Your task to perform on an android device: Search for vegetarian restaurants on Maps Image 0: 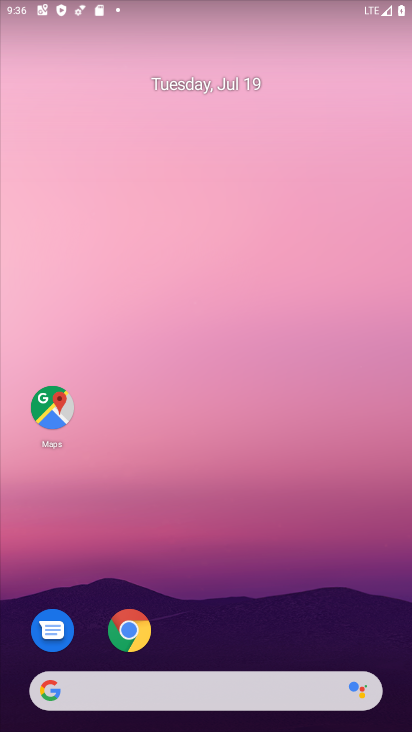
Step 0: drag from (226, 641) to (263, 180)
Your task to perform on an android device: Search for vegetarian restaurants on Maps Image 1: 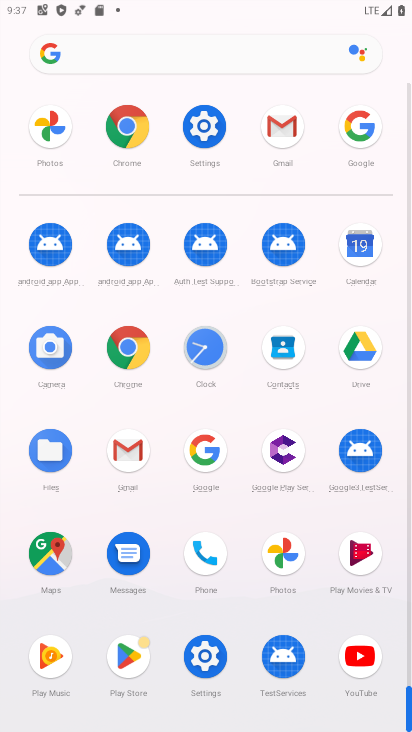
Step 1: click (47, 570)
Your task to perform on an android device: Search for vegetarian restaurants on Maps Image 2: 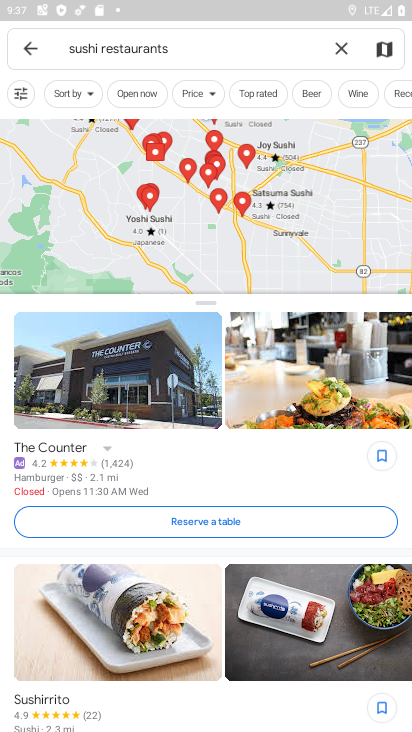
Step 2: click (343, 50)
Your task to perform on an android device: Search for vegetarian restaurants on Maps Image 3: 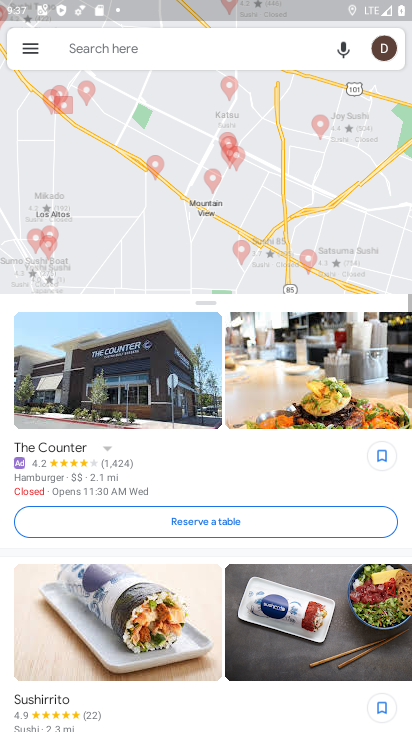
Step 3: click (263, 55)
Your task to perform on an android device: Search for vegetarian restaurants on Maps Image 4: 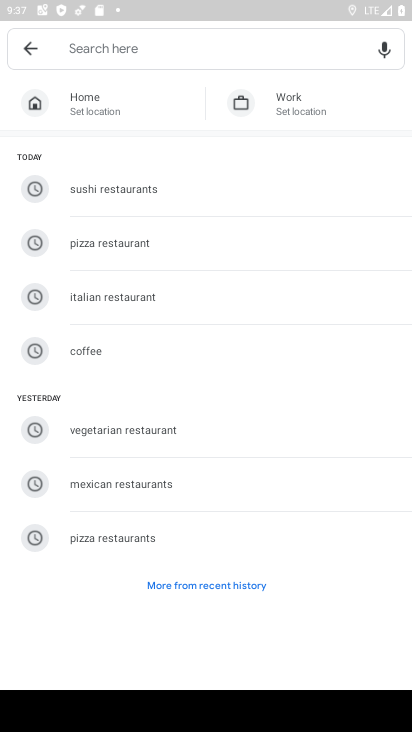
Step 4: click (150, 428)
Your task to perform on an android device: Search for vegetarian restaurants on Maps Image 5: 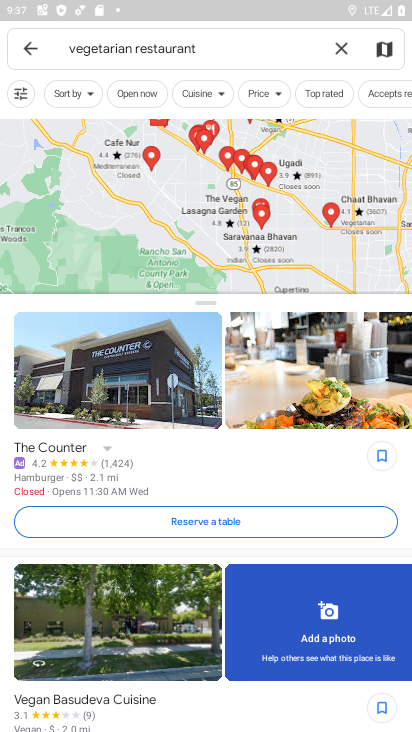
Step 5: task complete